Your task to perform on an android device: Go to Maps Image 0: 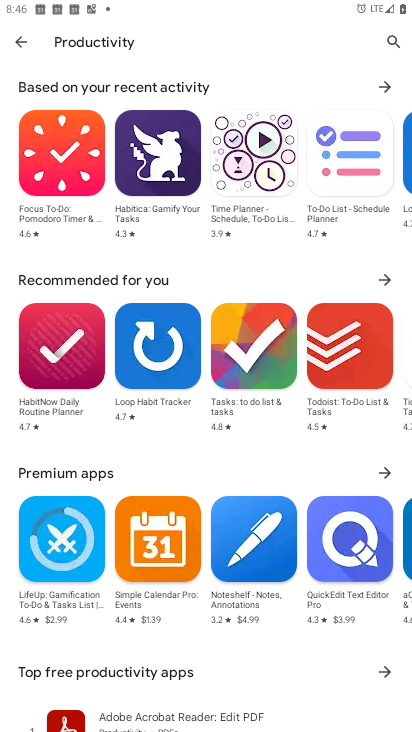
Step 0: press home button
Your task to perform on an android device: Go to Maps Image 1: 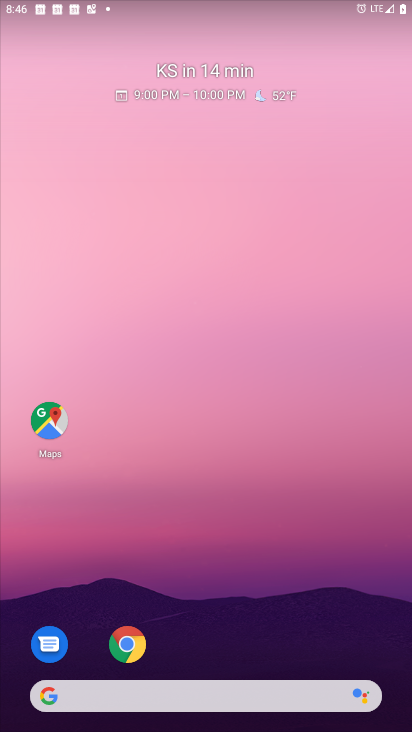
Step 1: click (49, 421)
Your task to perform on an android device: Go to Maps Image 2: 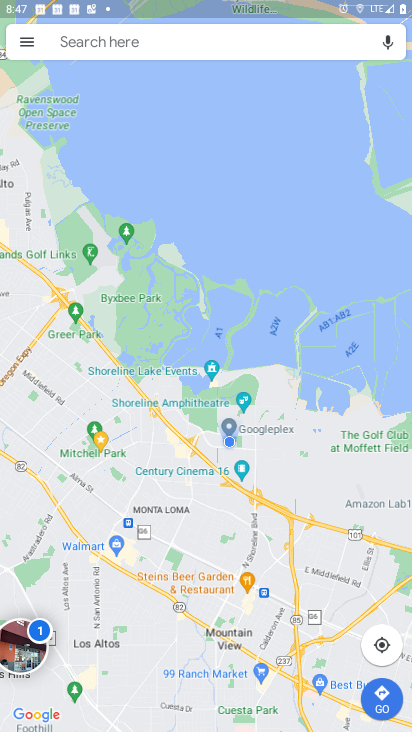
Step 2: task complete